Your task to perform on an android device: Go to Google Image 0: 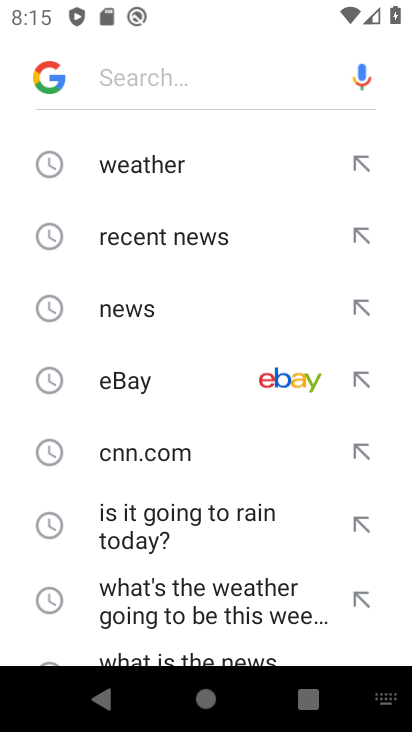
Step 0: press home button
Your task to perform on an android device: Go to Google Image 1: 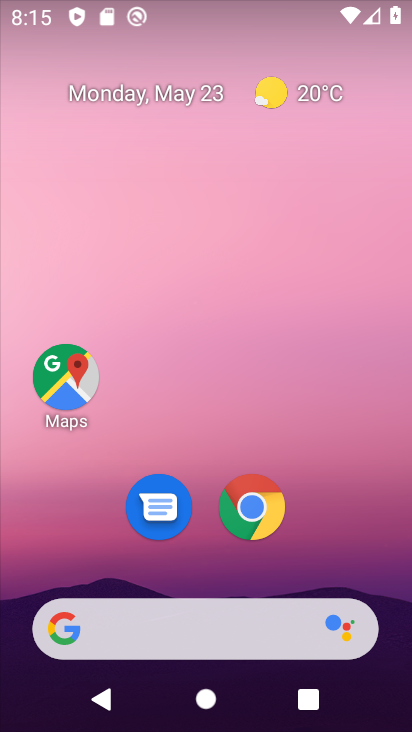
Step 1: drag from (337, 570) to (352, 0)
Your task to perform on an android device: Go to Google Image 2: 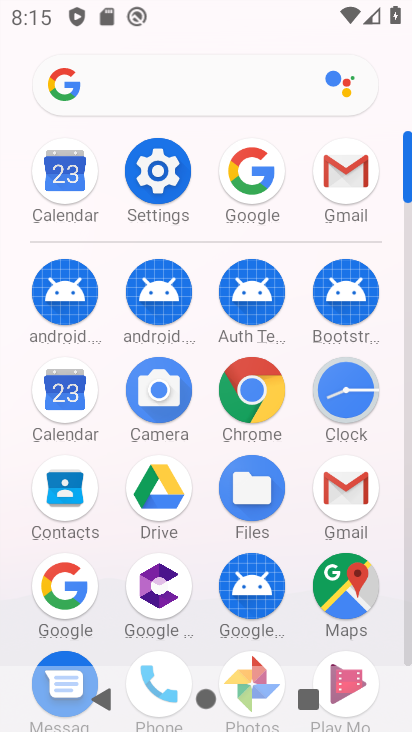
Step 2: click (58, 590)
Your task to perform on an android device: Go to Google Image 3: 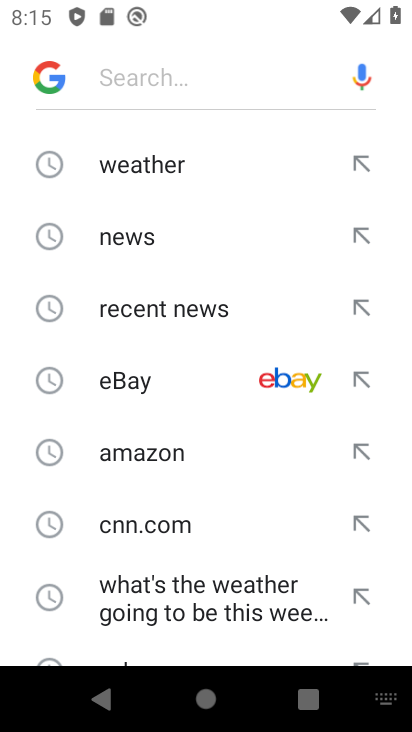
Step 3: task complete